Your task to perform on an android device: uninstall "Messenger Lite" Image 0: 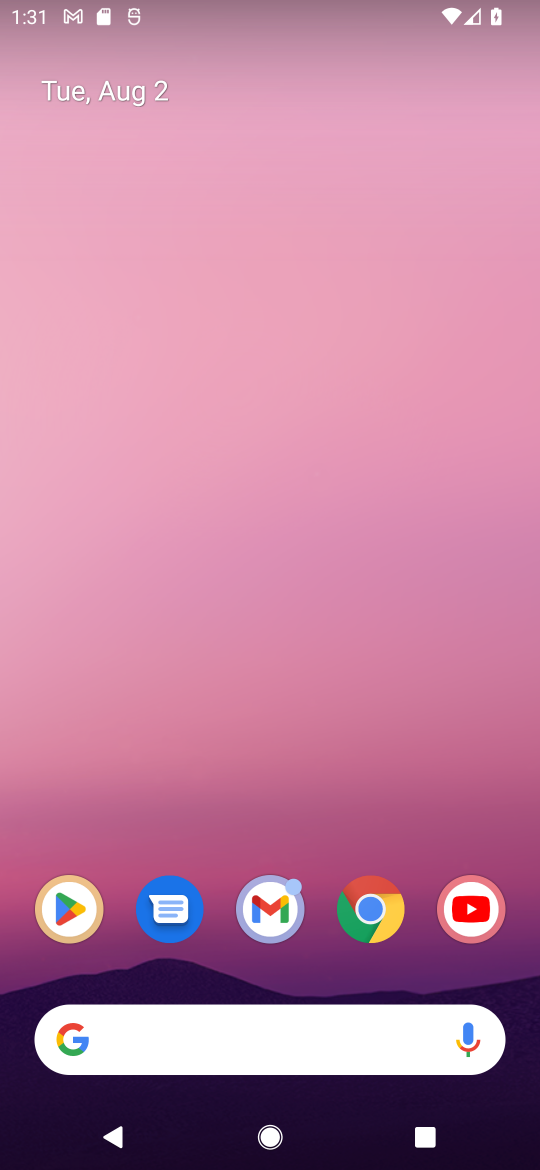
Step 0: click (80, 904)
Your task to perform on an android device: uninstall "Messenger Lite" Image 1: 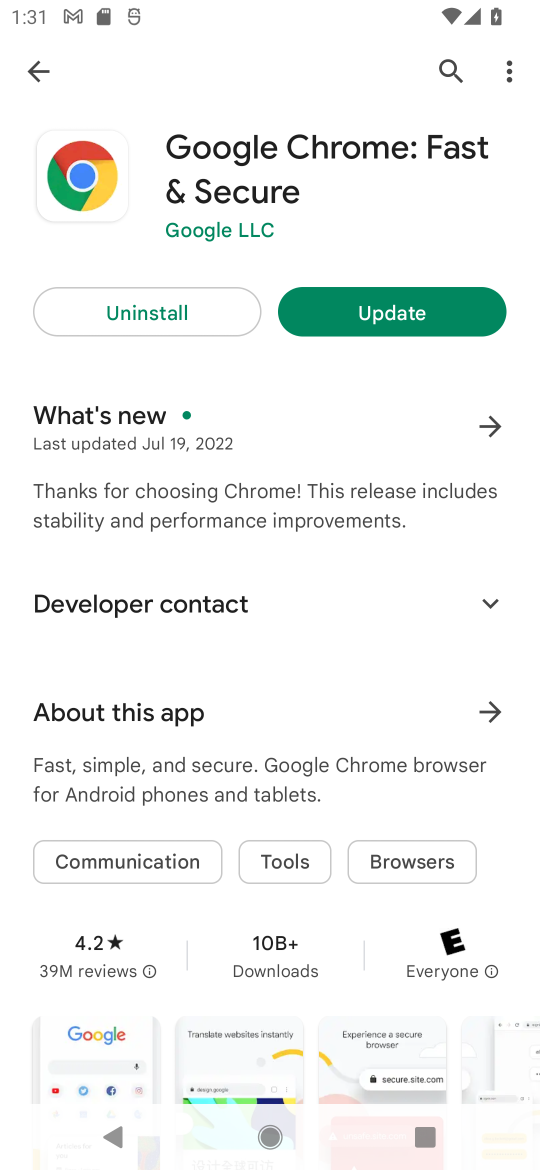
Step 1: click (29, 65)
Your task to perform on an android device: uninstall "Messenger Lite" Image 2: 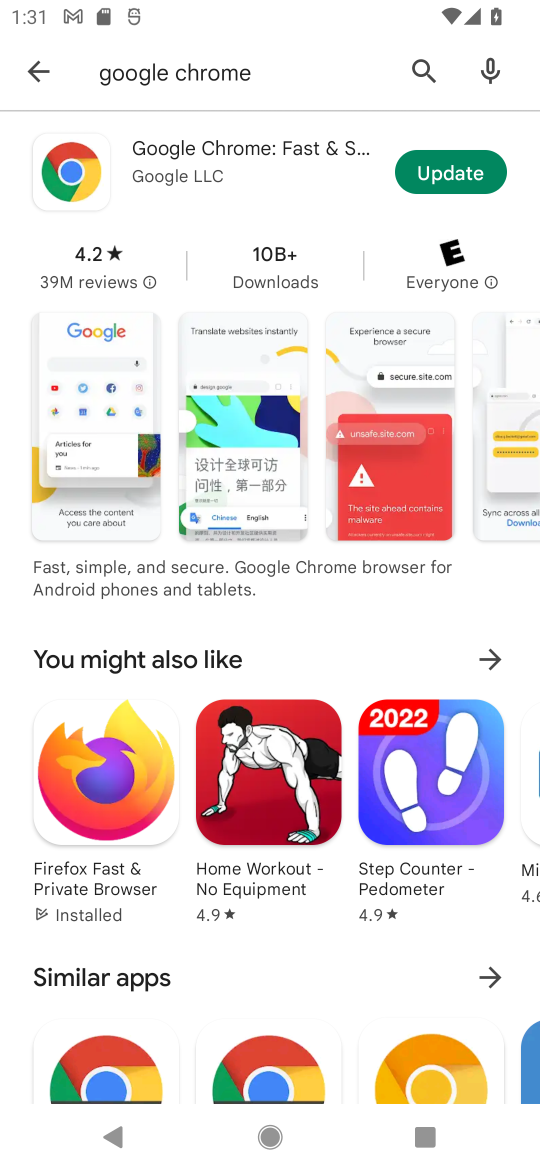
Step 2: click (421, 71)
Your task to perform on an android device: uninstall "Messenger Lite" Image 3: 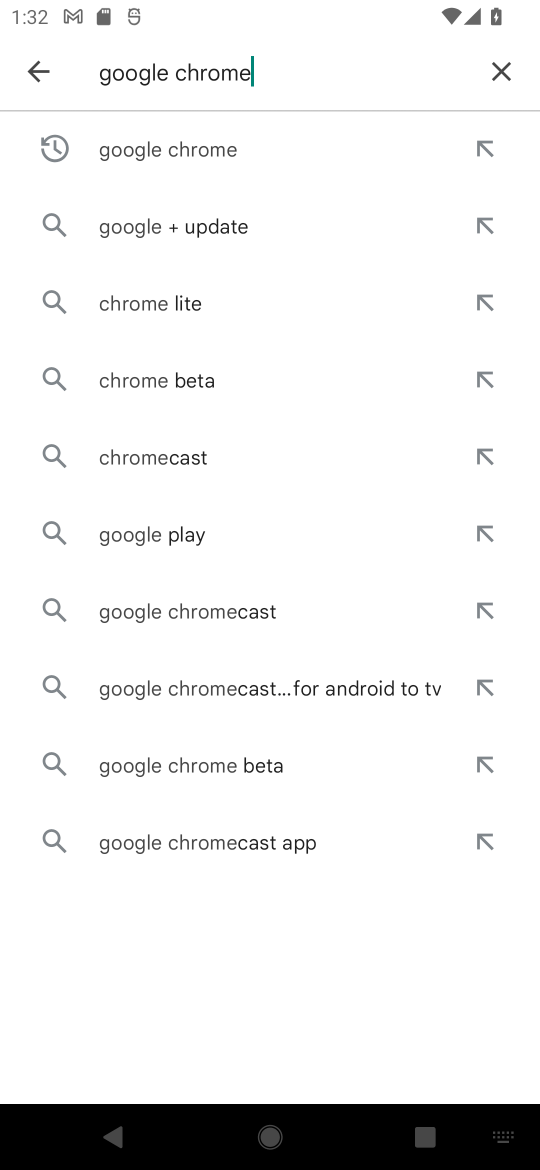
Step 3: click (169, 148)
Your task to perform on an android device: uninstall "Messenger Lite" Image 4: 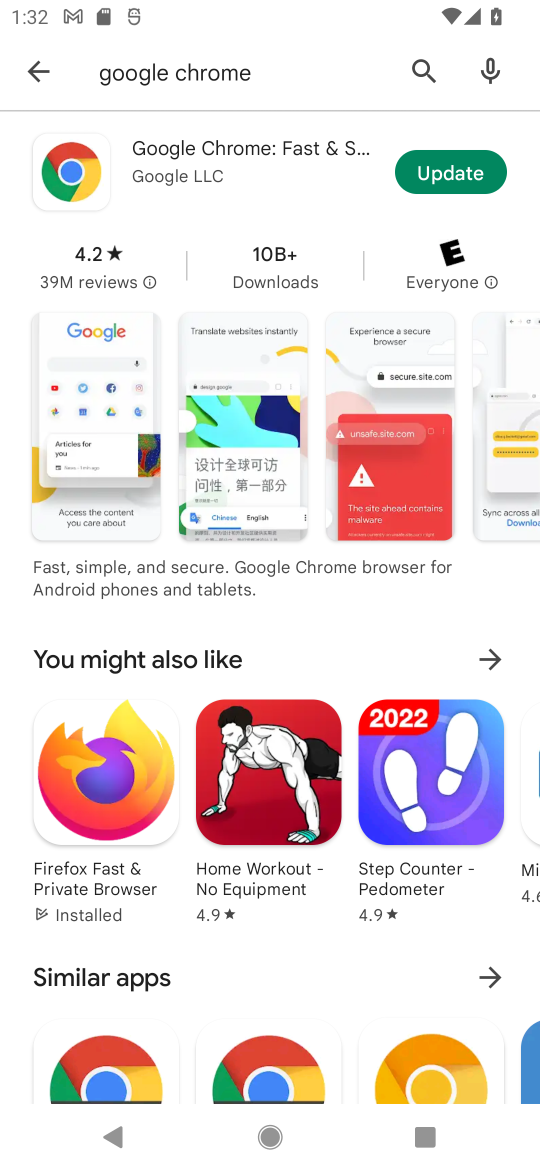
Step 4: click (425, 70)
Your task to perform on an android device: uninstall "Messenger Lite" Image 5: 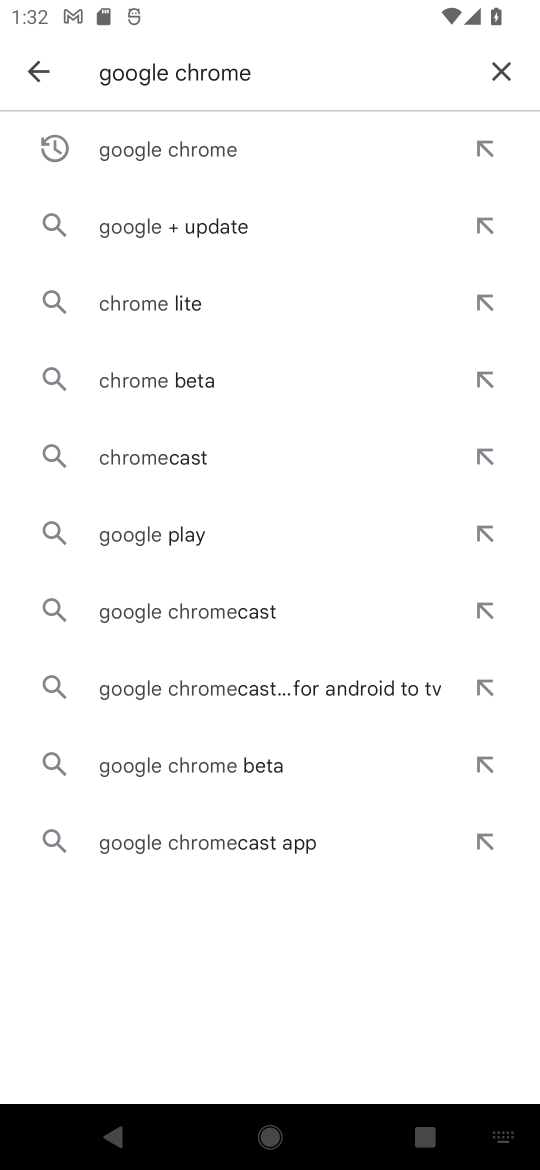
Step 5: click (499, 76)
Your task to perform on an android device: uninstall "Messenger Lite" Image 6: 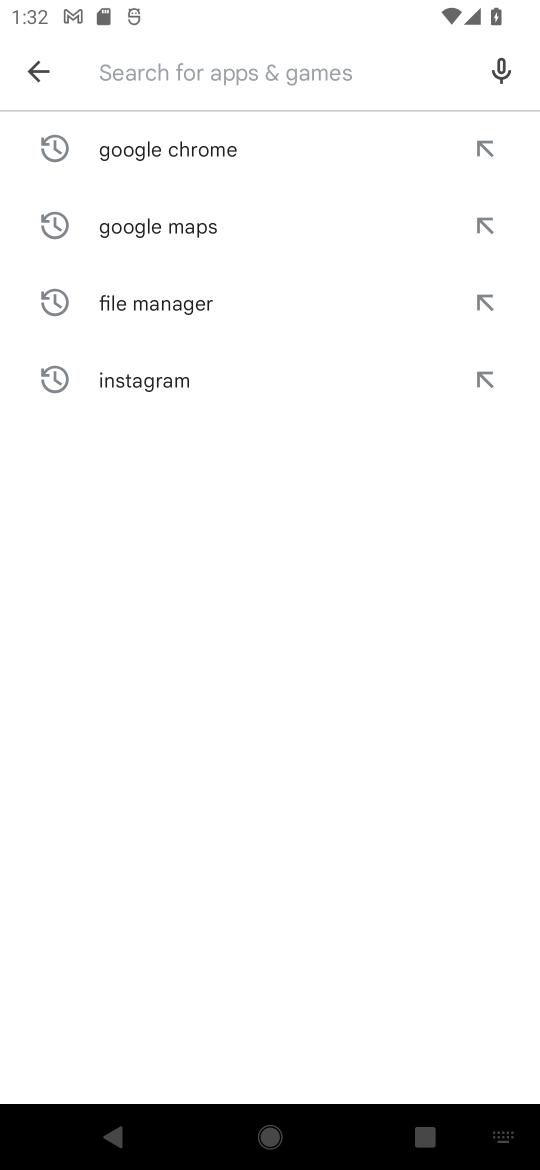
Step 6: type "Messenger lite"
Your task to perform on an android device: uninstall "Messenger Lite" Image 7: 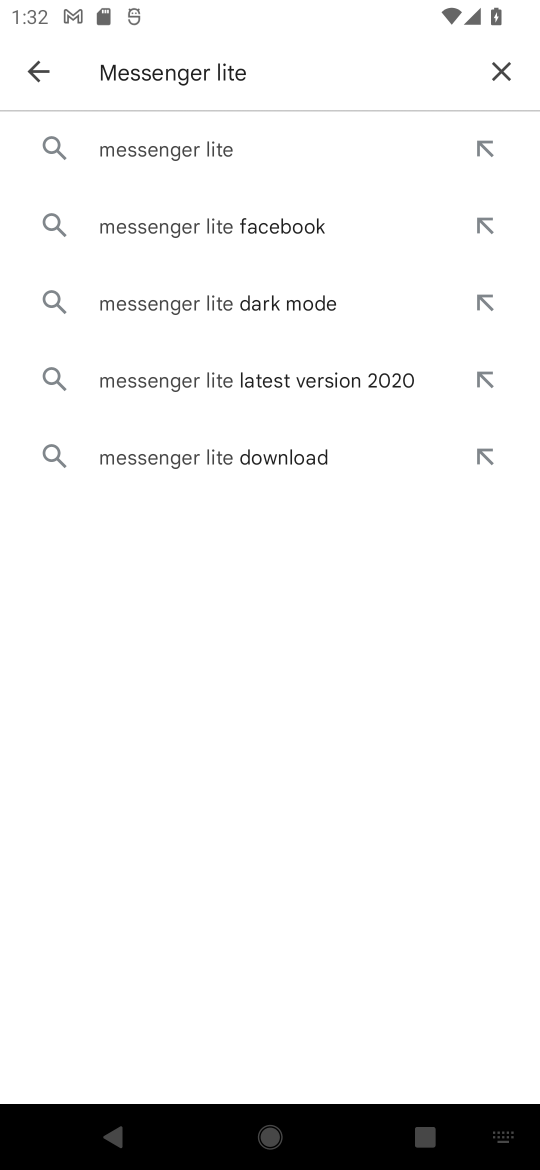
Step 7: click (155, 154)
Your task to perform on an android device: uninstall "Messenger Lite" Image 8: 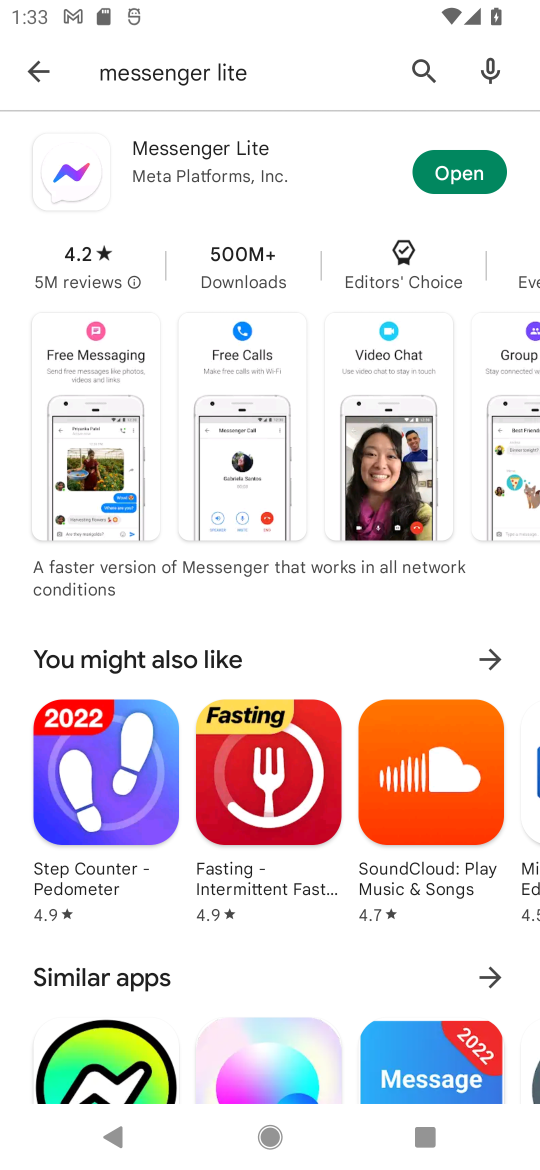
Step 8: click (236, 152)
Your task to perform on an android device: uninstall "Messenger Lite" Image 9: 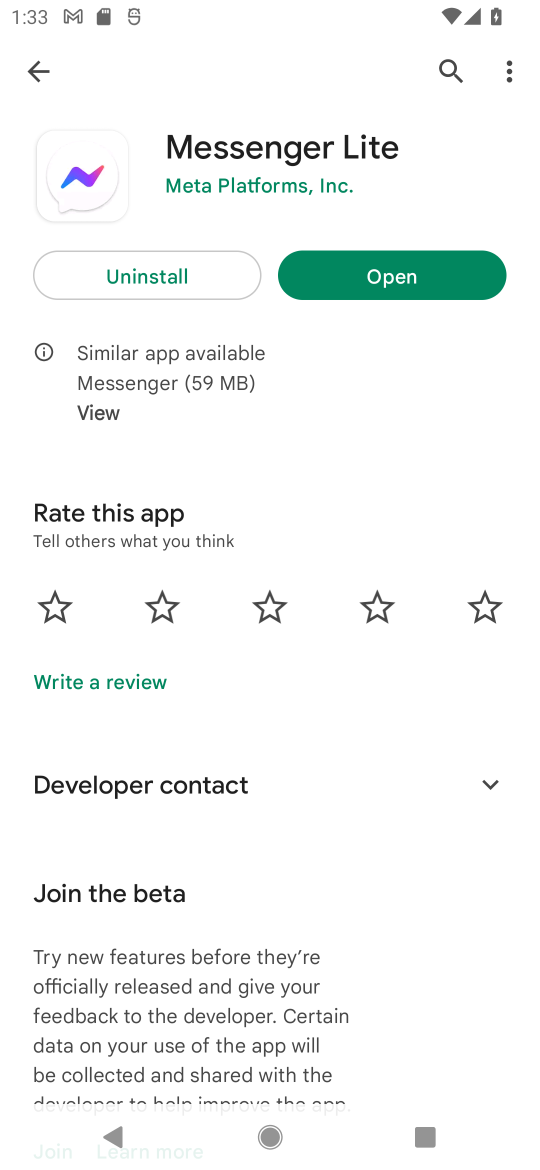
Step 9: click (141, 264)
Your task to perform on an android device: uninstall "Messenger Lite" Image 10: 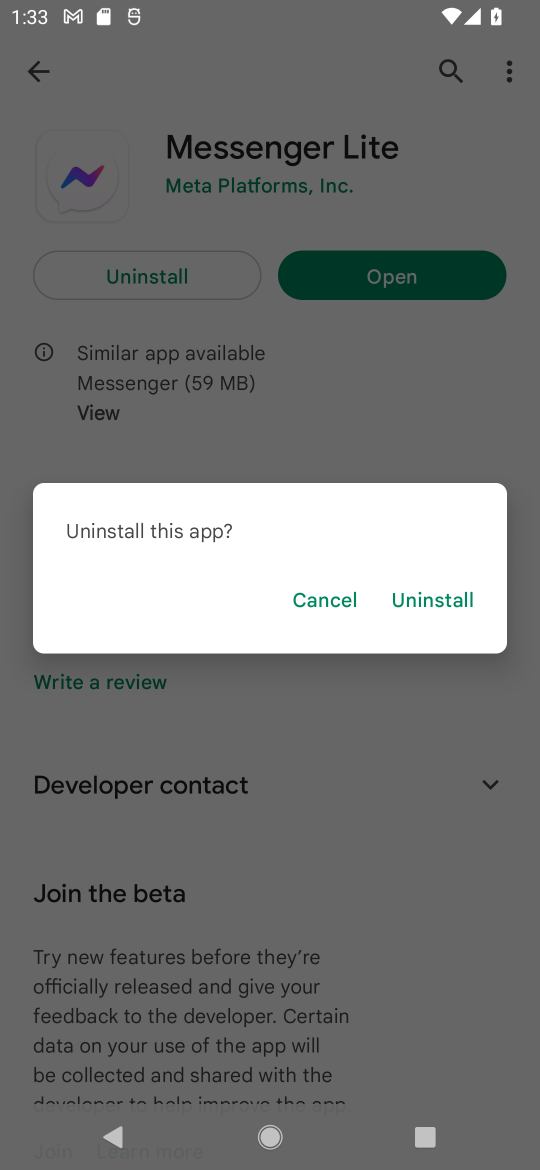
Step 10: click (435, 596)
Your task to perform on an android device: uninstall "Messenger Lite" Image 11: 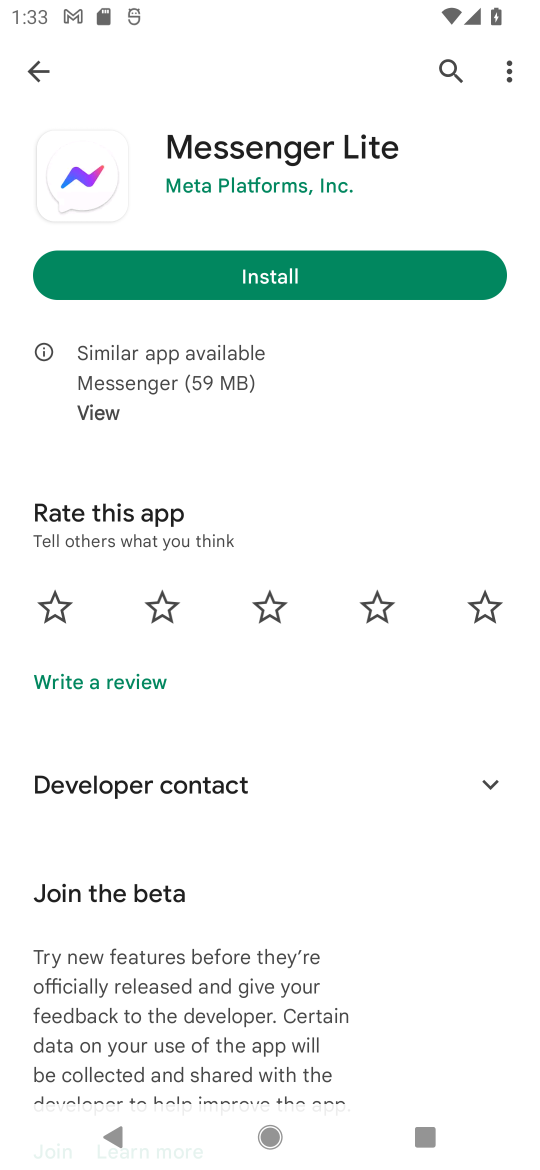
Step 11: task complete